Your task to perform on an android device: What's the weather going to be this weekend? Image 0: 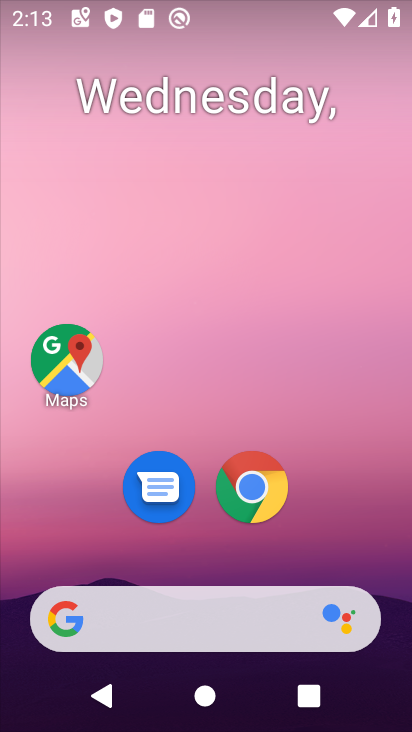
Step 0: drag from (373, 495) to (369, 37)
Your task to perform on an android device: What's the weather going to be this weekend? Image 1: 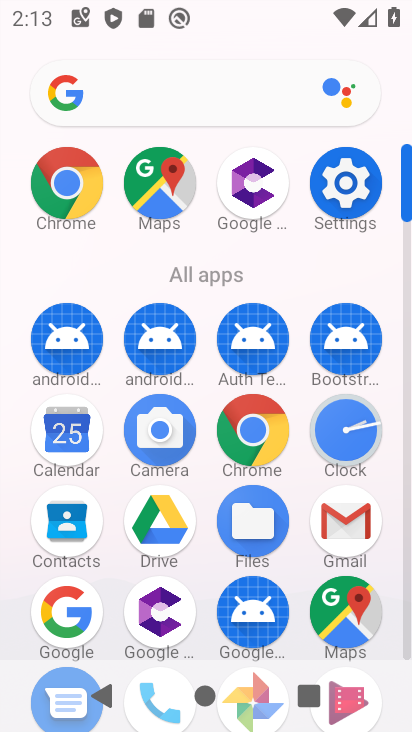
Step 1: drag from (393, 597) to (340, 134)
Your task to perform on an android device: What's the weather going to be this weekend? Image 2: 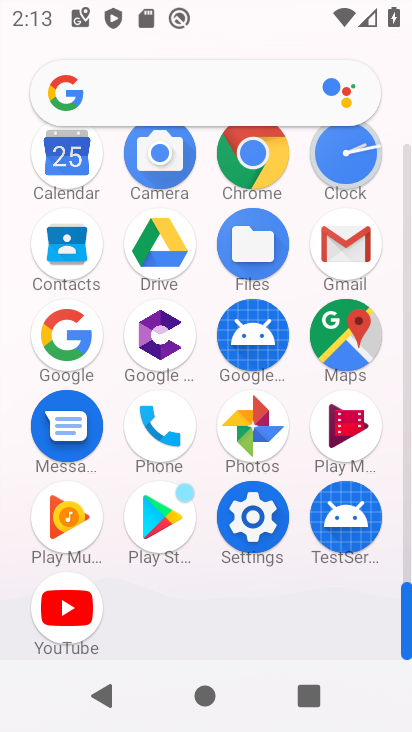
Step 2: drag from (392, 360) to (411, 631)
Your task to perform on an android device: What's the weather going to be this weekend? Image 3: 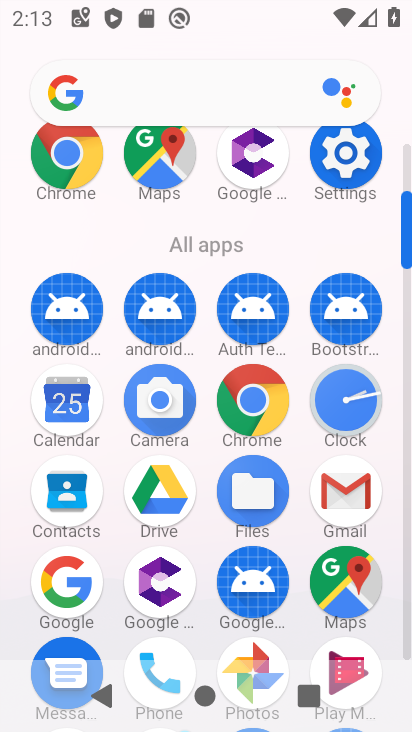
Step 3: drag from (371, 645) to (354, 194)
Your task to perform on an android device: What's the weather going to be this weekend? Image 4: 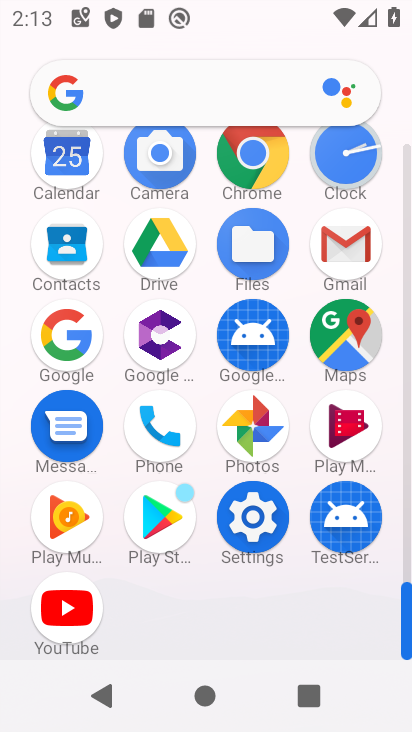
Step 4: drag from (370, 285) to (409, 606)
Your task to perform on an android device: What's the weather going to be this weekend? Image 5: 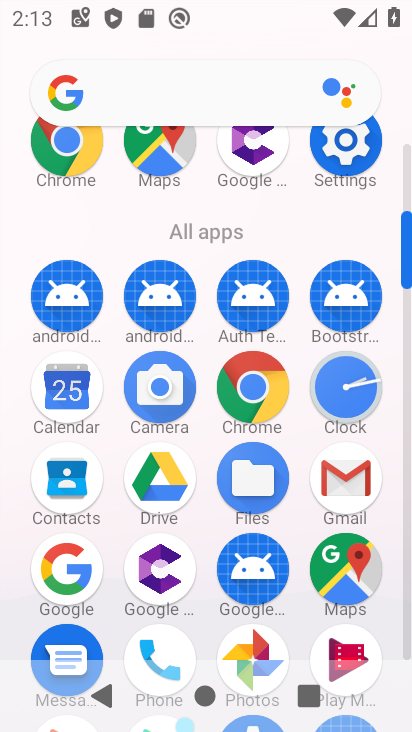
Step 5: click (365, 663)
Your task to perform on an android device: What's the weather going to be this weekend? Image 6: 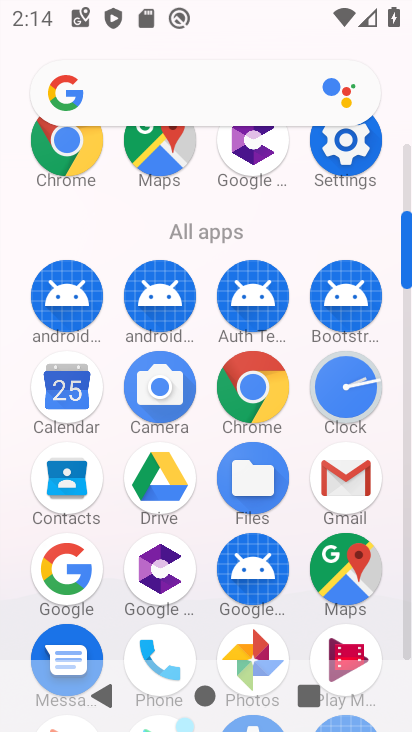
Step 6: press home button
Your task to perform on an android device: What's the weather going to be this weekend? Image 7: 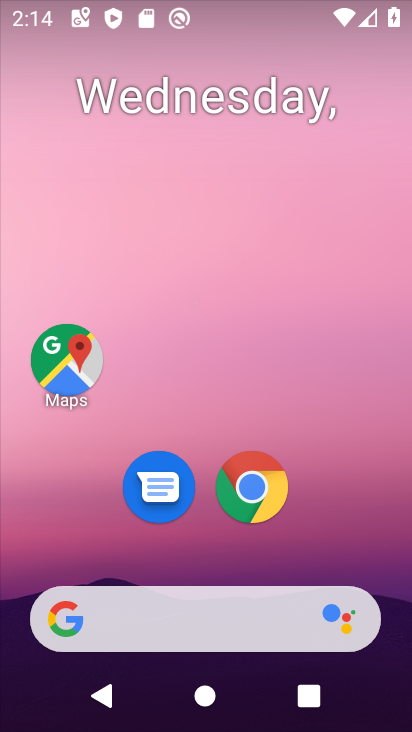
Step 7: click (72, 635)
Your task to perform on an android device: What's the weather going to be this weekend? Image 8: 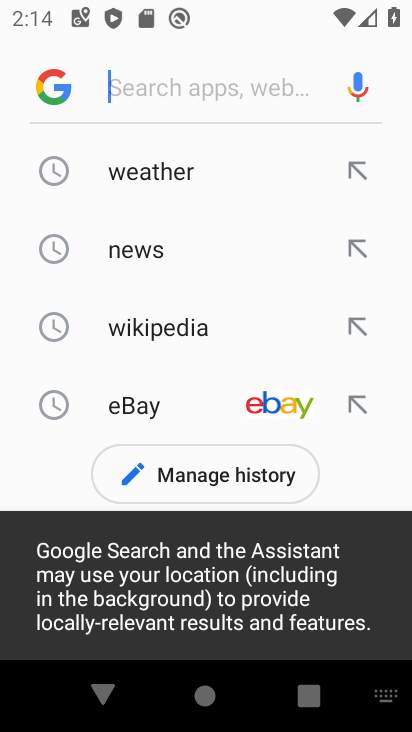
Step 8: click (65, 89)
Your task to perform on an android device: What's the weather going to be this weekend? Image 9: 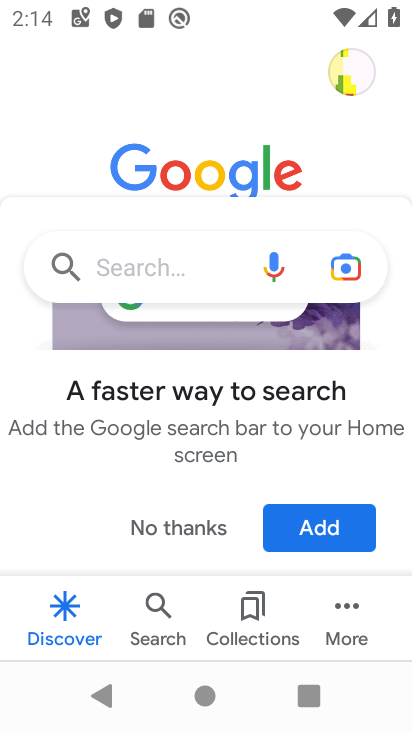
Step 9: drag from (165, 538) to (219, 146)
Your task to perform on an android device: What's the weather going to be this weekend? Image 10: 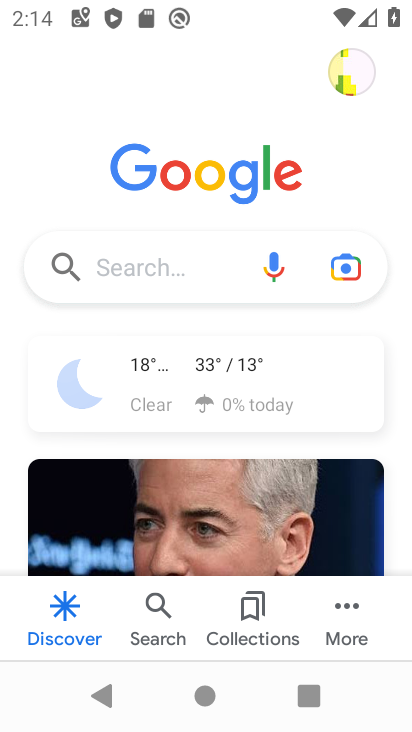
Step 10: click (194, 378)
Your task to perform on an android device: What's the weather going to be this weekend? Image 11: 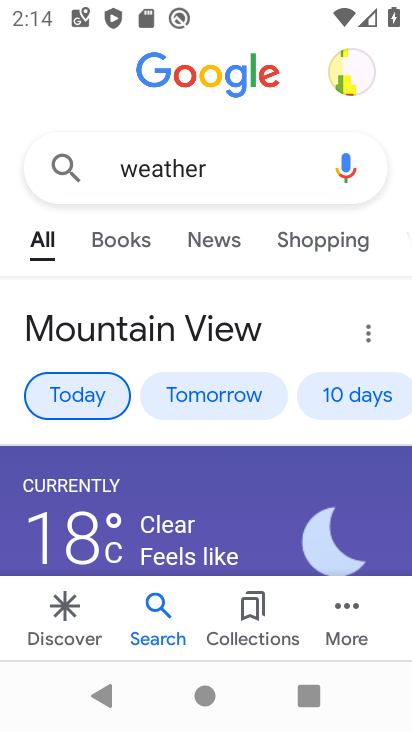
Step 11: task complete